Your task to perform on an android device: Go to CNN.com Image 0: 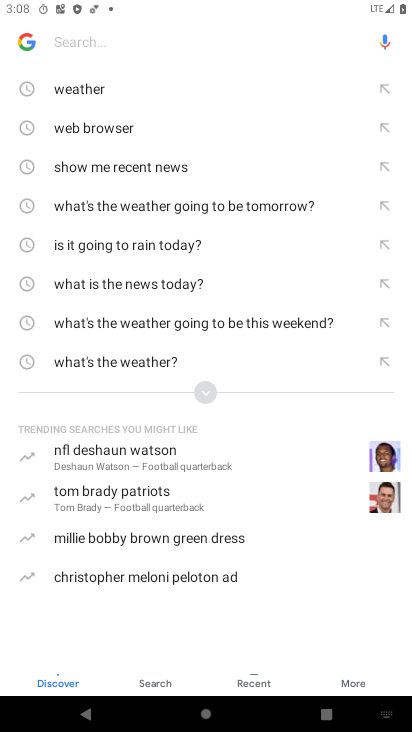
Step 0: press home button
Your task to perform on an android device: Go to CNN.com Image 1: 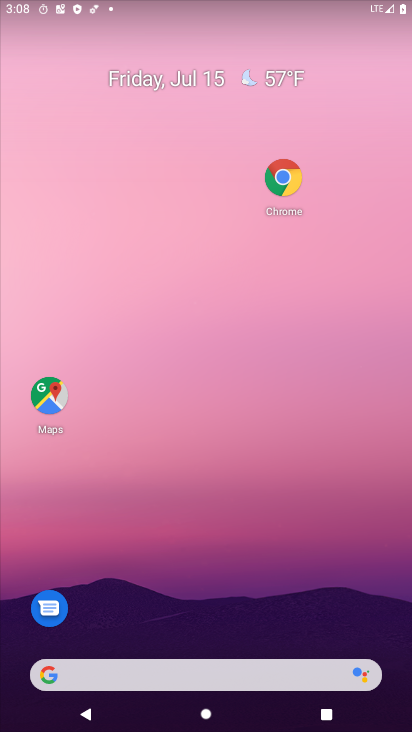
Step 1: click (274, 171)
Your task to perform on an android device: Go to CNN.com Image 2: 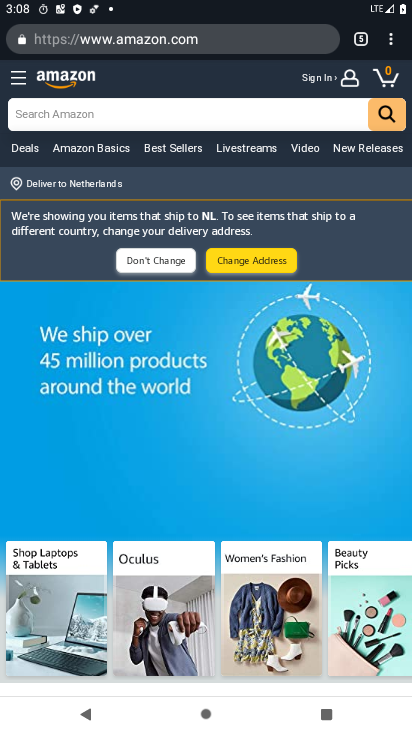
Step 2: click (153, 46)
Your task to perform on an android device: Go to CNN.com Image 3: 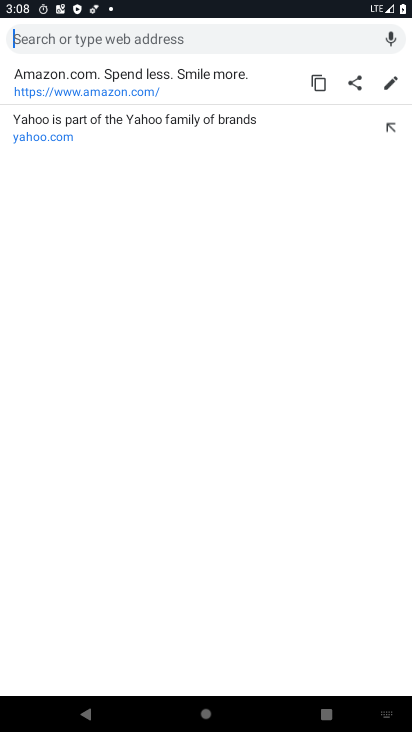
Step 3: click (154, 39)
Your task to perform on an android device: Go to CNN.com Image 4: 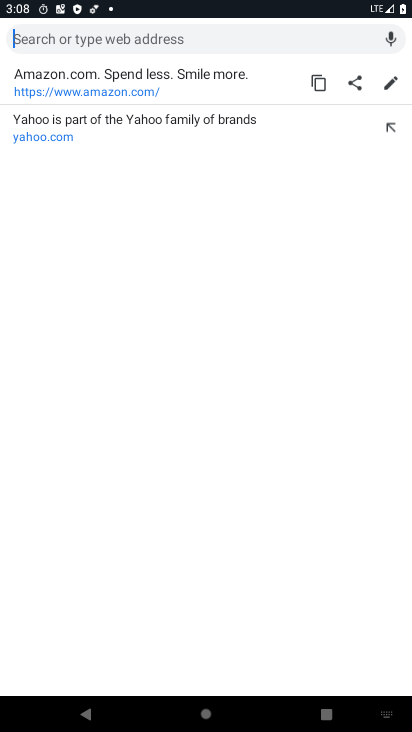
Step 4: type "CNN.com"
Your task to perform on an android device: Go to CNN.com Image 5: 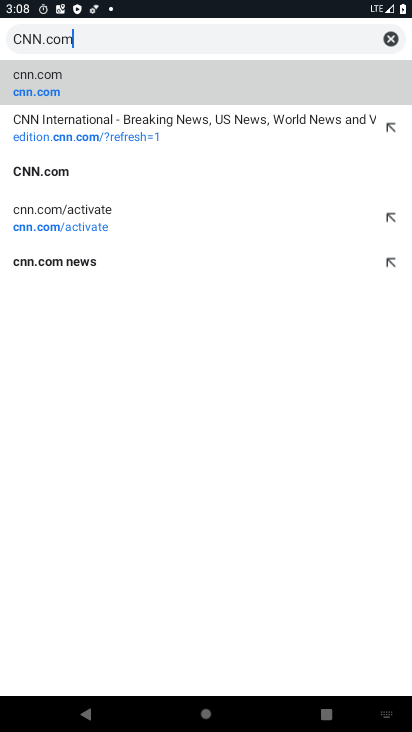
Step 5: click (16, 70)
Your task to perform on an android device: Go to CNN.com Image 6: 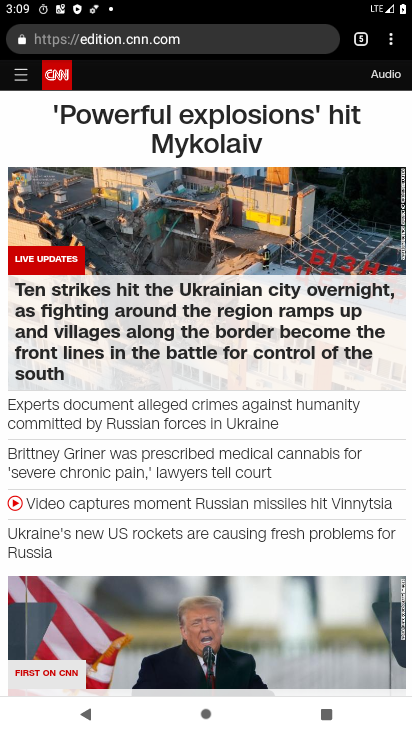
Step 6: task complete